Your task to perform on an android device: refresh tabs in the chrome app Image 0: 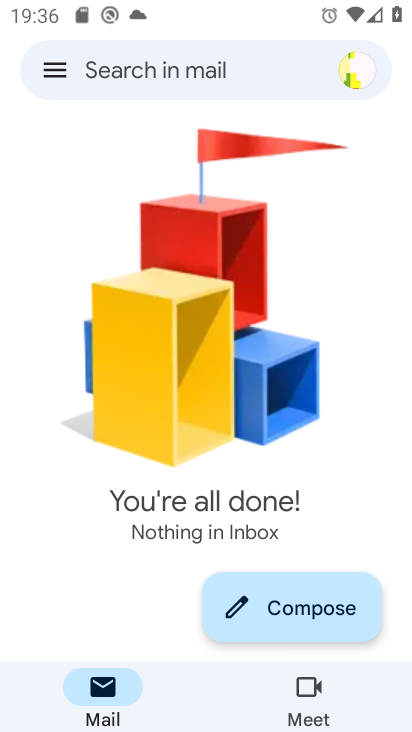
Step 0: press home button
Your task to perform on an android device: refresh tabs in the chrome app Image 1: 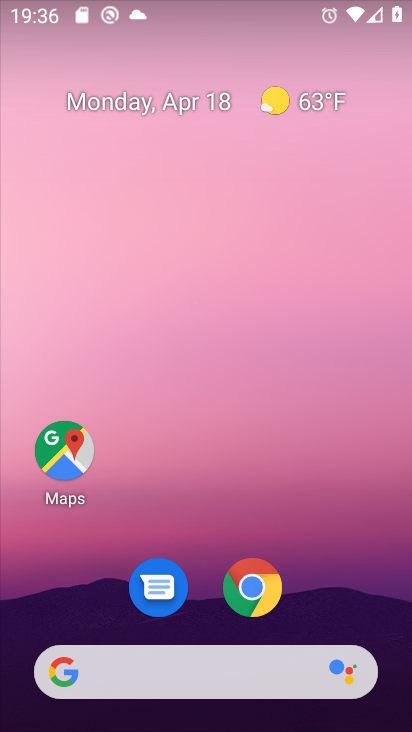
Step 1: click (265, 592)
Your task to perform on an android device: refresh tabs in the chrome app Image 2: 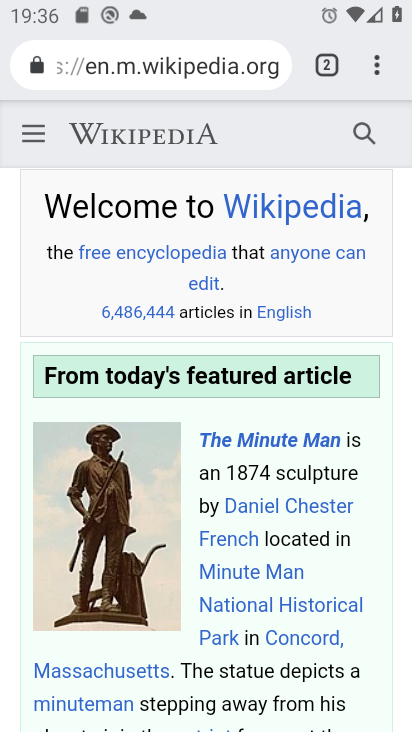
Step 2: click (372, 57)
Your task to perform on an android device: refresh tabs in the chrome app Image 3: 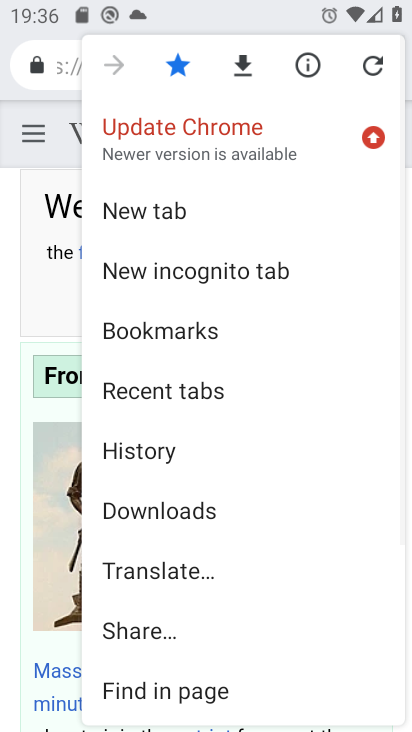
Step 3: click (372, 57)
Your task to perform on an android device: refresh tabs in the chrome app Image 4: 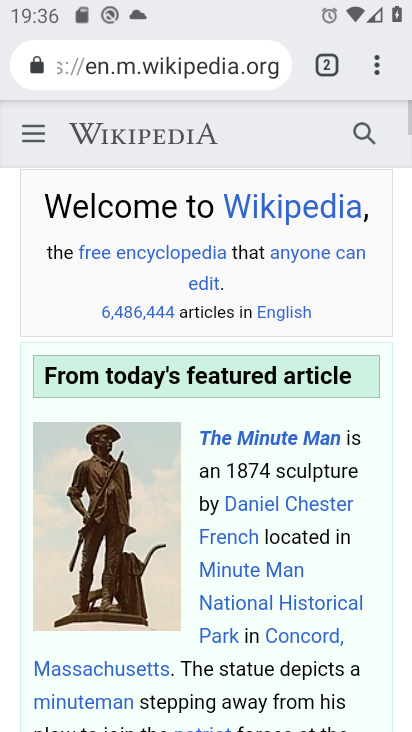
Step 4: task complete